Your task to perform on an android device: Show the shopping cart on target. Add "dell xps" to the cart on target, then select checkout. Image 0: 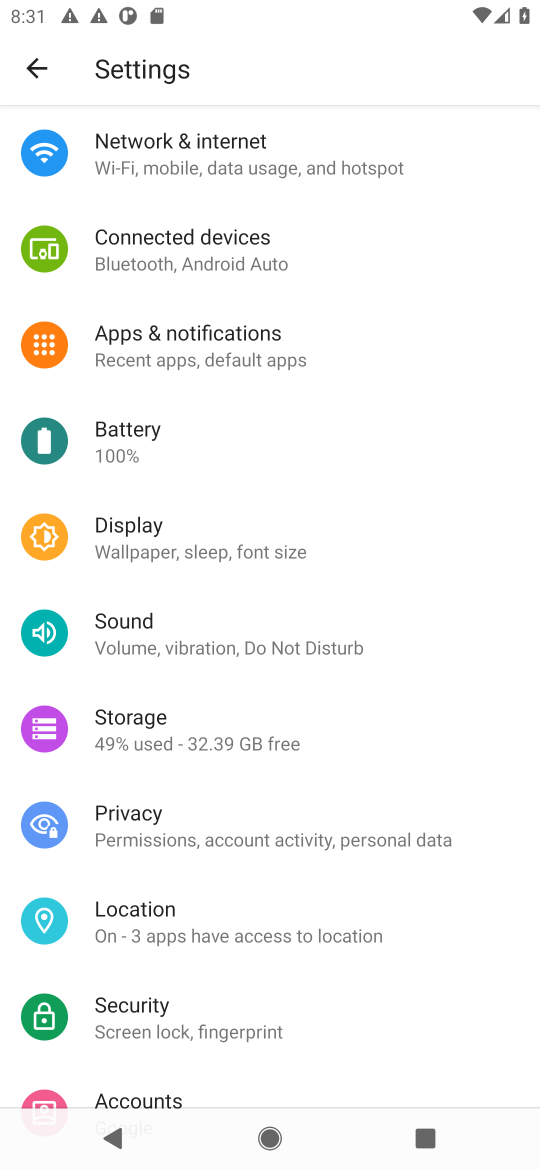
Step 0: press home button
Your task to perform on an android device: Show the shopping cart on target. Add "dell xps" to the cart on target, then select checkout. Image 1: 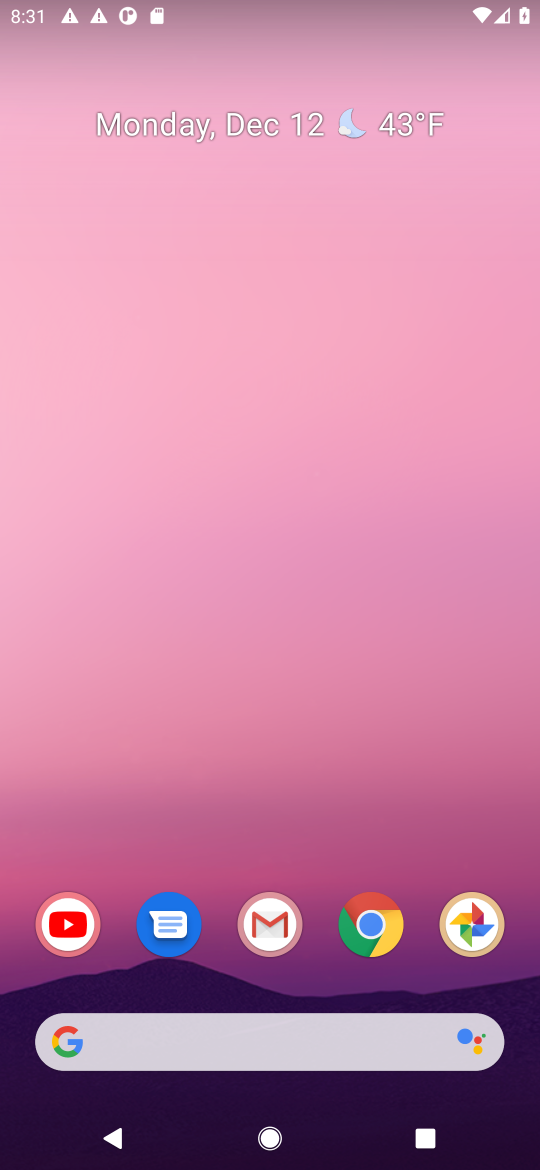
Step 1: drag from (255, 937) to (352, 246)
Your task to perform on an android device: Show the shopping cart on target. Add "dell xps" to the cart on target, then select checkout. Image 2: 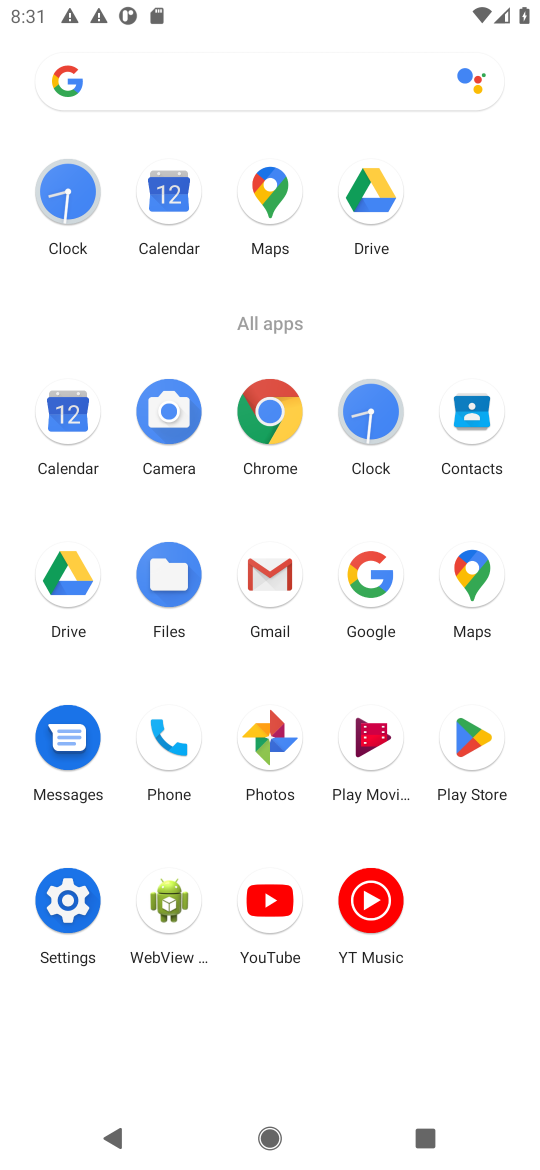
Step 2: click (363, 584)
Your task to perform on an android device: Show the shopping cart on target. Add "dell xps" to the cart on target, then select checkout. Image 3: 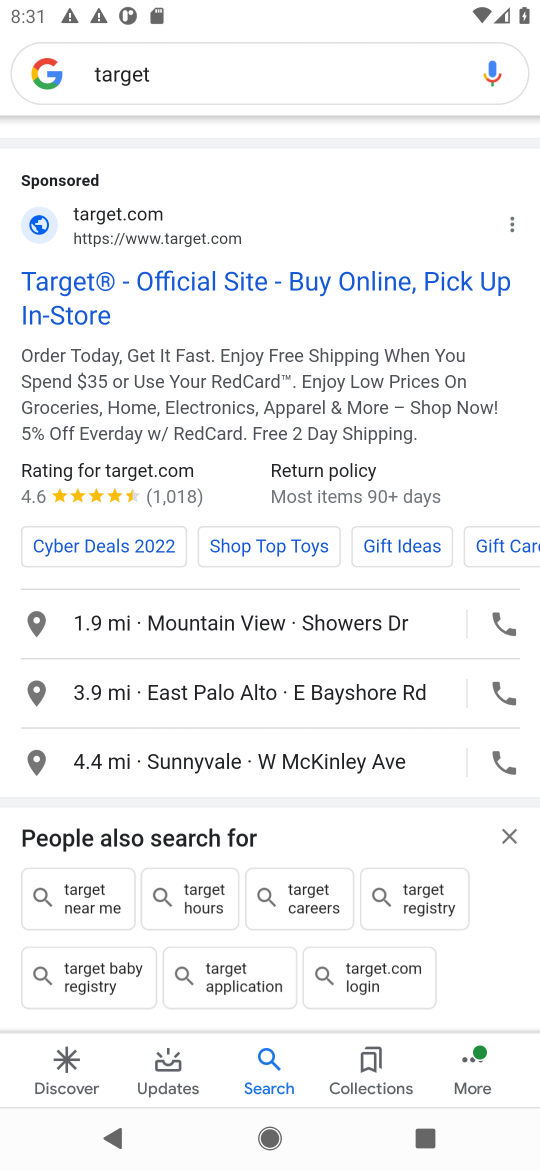
Step 3: drag from (374, 881) to (352, 392)
Your task to perform on an android device: Show the shopping cart on target. Add "dell xps" to the cart on target, then select checkout. Image 4: 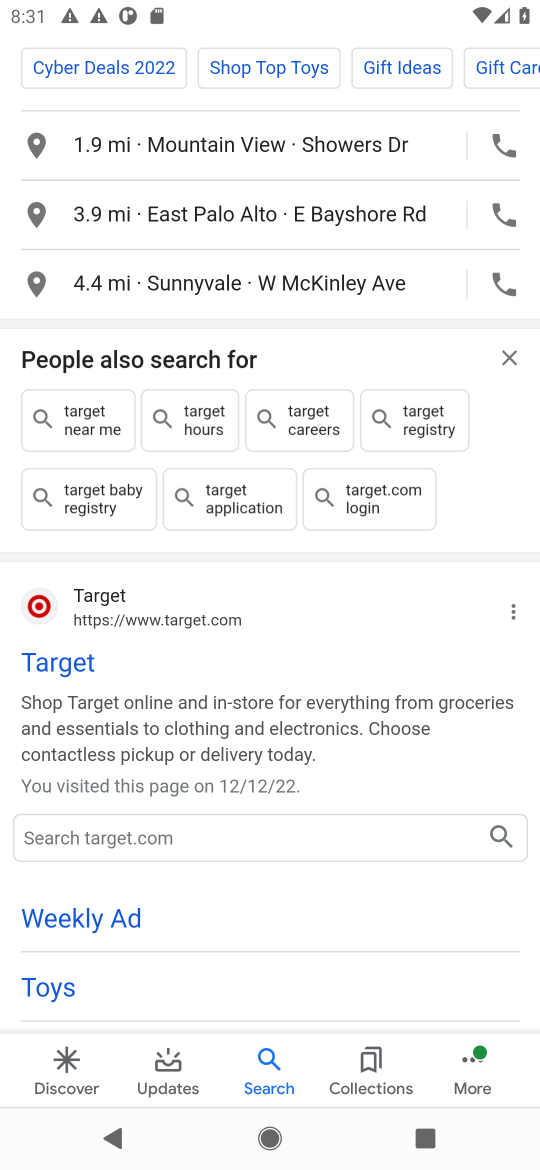
Step 4: drag from (348, 792) to (322, 287)
Your task to perform on an android device: Show the shopping cart on target. Add "dell xps" to the cart on target, then select checkout. Image 5: 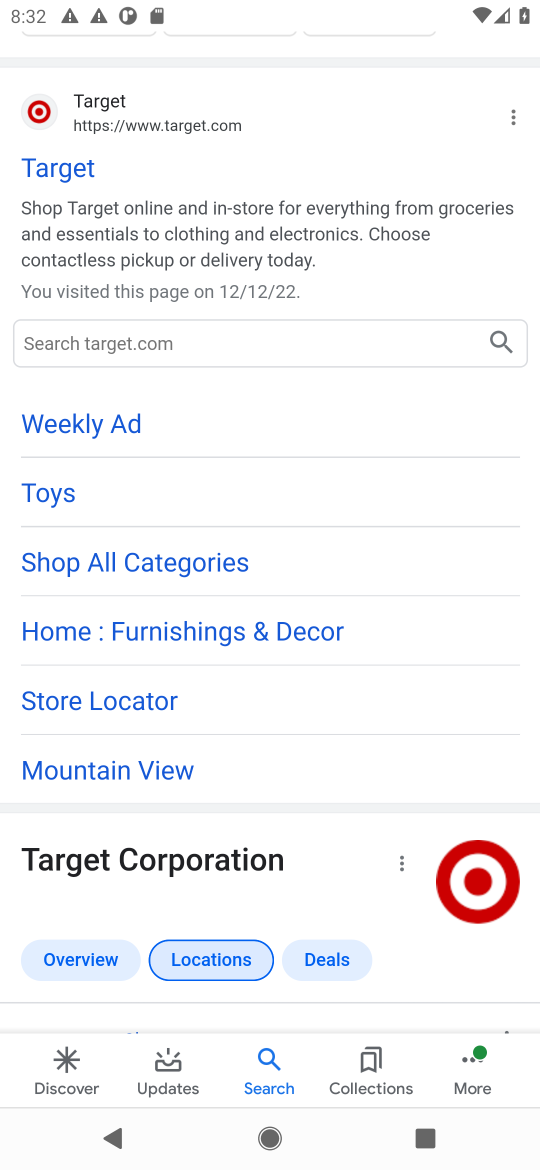
Step 5: drag from (404, 812) to (404, 322)
Your task to perform on an android device: Show the shopping cart on target. Add "dell xps" to the cart on target, then select checkout. Image 6: 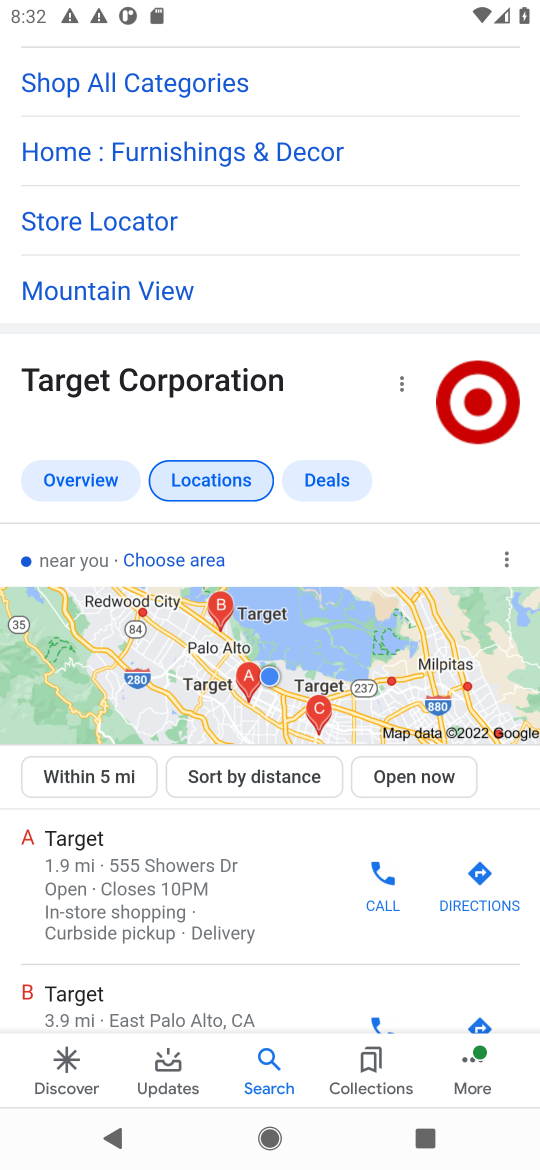
Step 6: click (233, 392)
Your task to perform on an android device: Show the shopping cart on target. Add "dell xps" to the cart on target, then select checkout. Image 7: 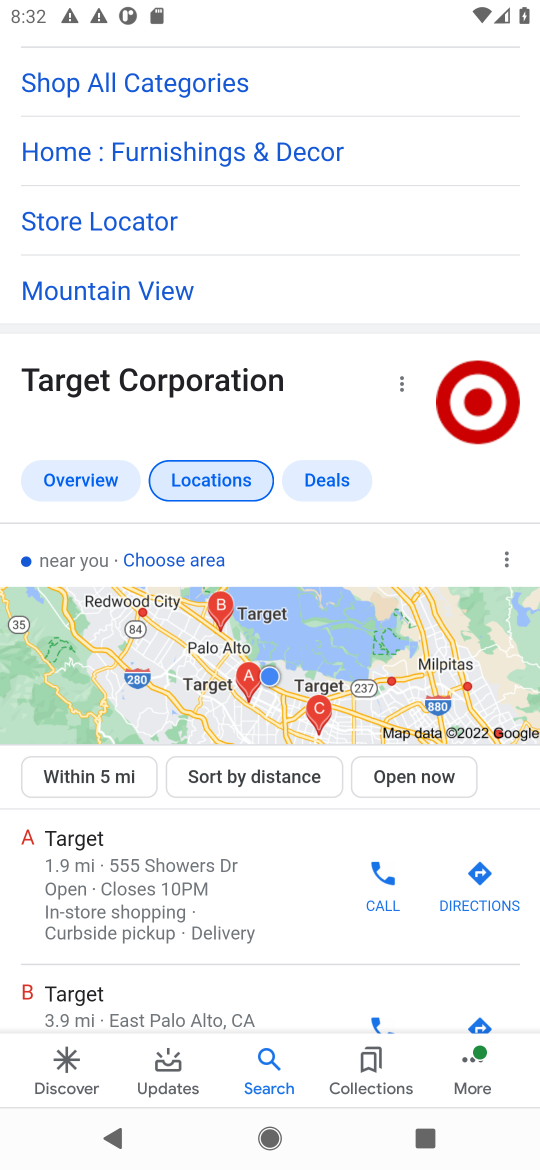
Step 7: click (451, 407)
Your task to perform on an android device: Show the shopping cart on target. Add "dell xps" to the cart on target, then select checkout. Image 8: 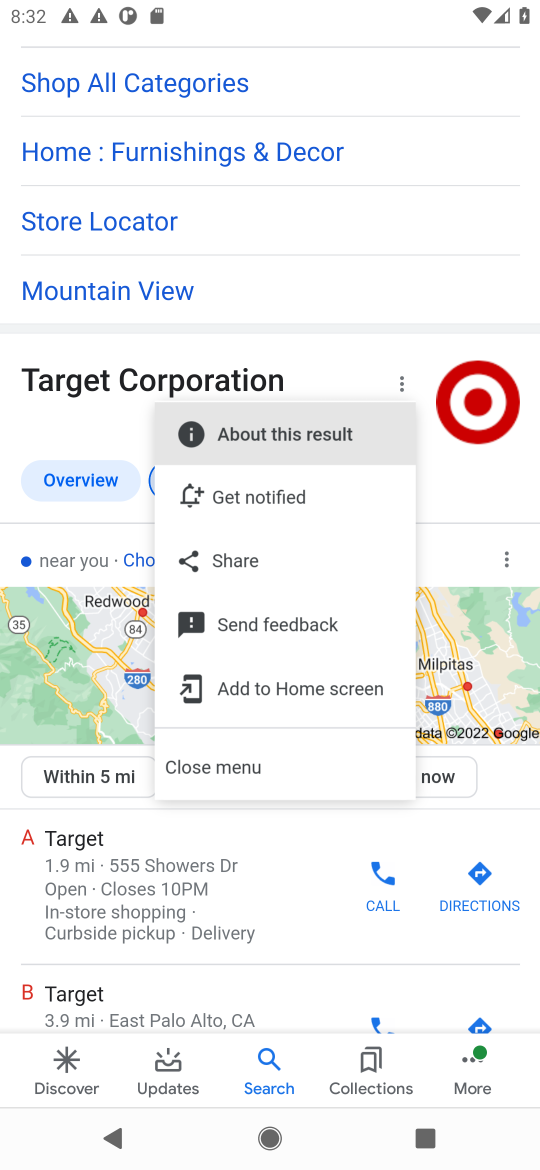
Step 8: click (324, 895)
Your task to perform on an android device: Show the shopping cart on target. Add "dell xps" to the cart on target, then select checkout. Image 9: 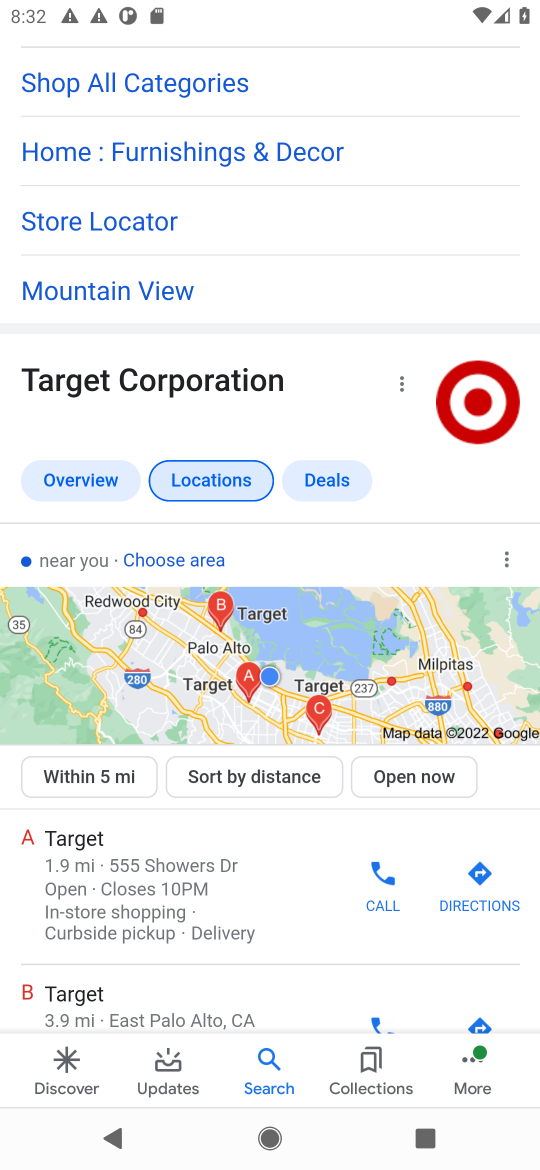
Step 9: drag from (383, 407) to (379, 627)
Your task to perform on an android device: Show the shopping cart on target. Add "dell xps" to the cart on target, then select checkout. Image 10: 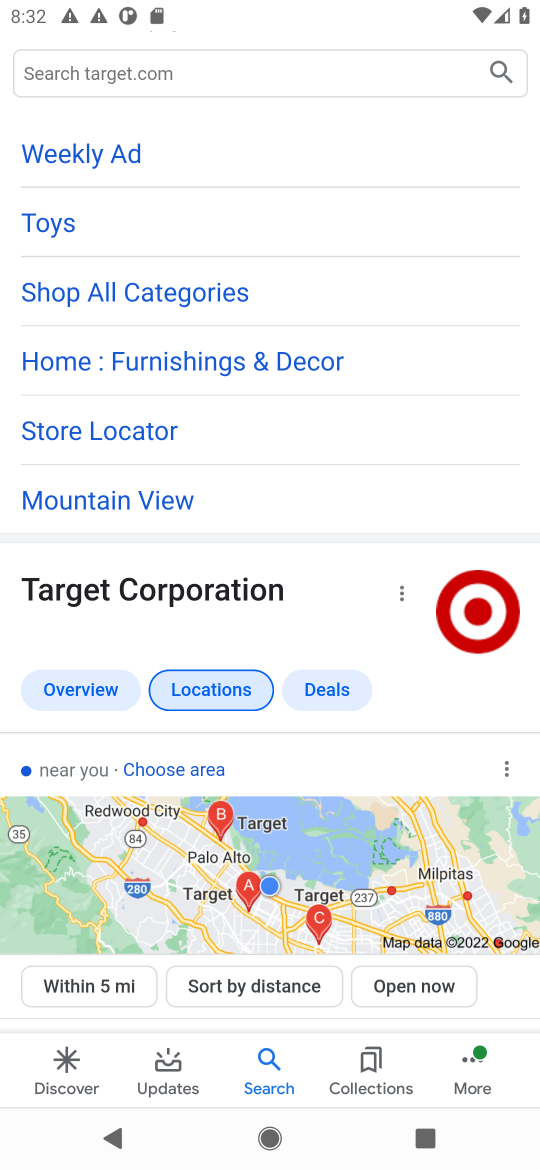
Step 10: click (312, 623)
Your task to perform on an android device: Show the shopping cart on target. Add "dell xps" to the cart on target, then select checkout. Image 11: 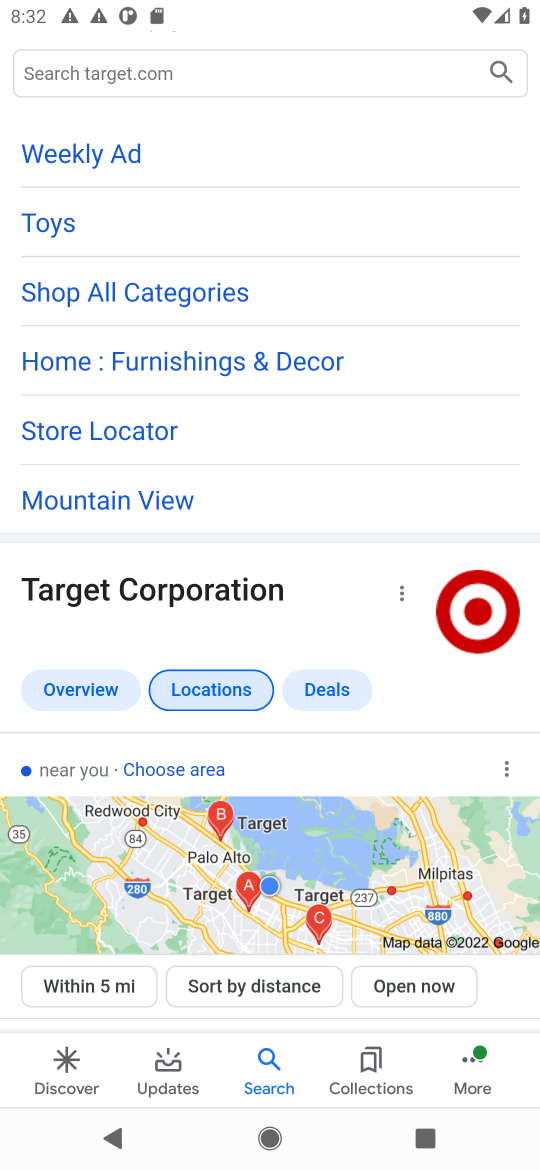
Step 11: drag from (312, 561) to (288, 706)
Your task to perform on an android device: Show the shopping cart on target. Add "dell xps" to the cart on target, then select checkout. Image 12: 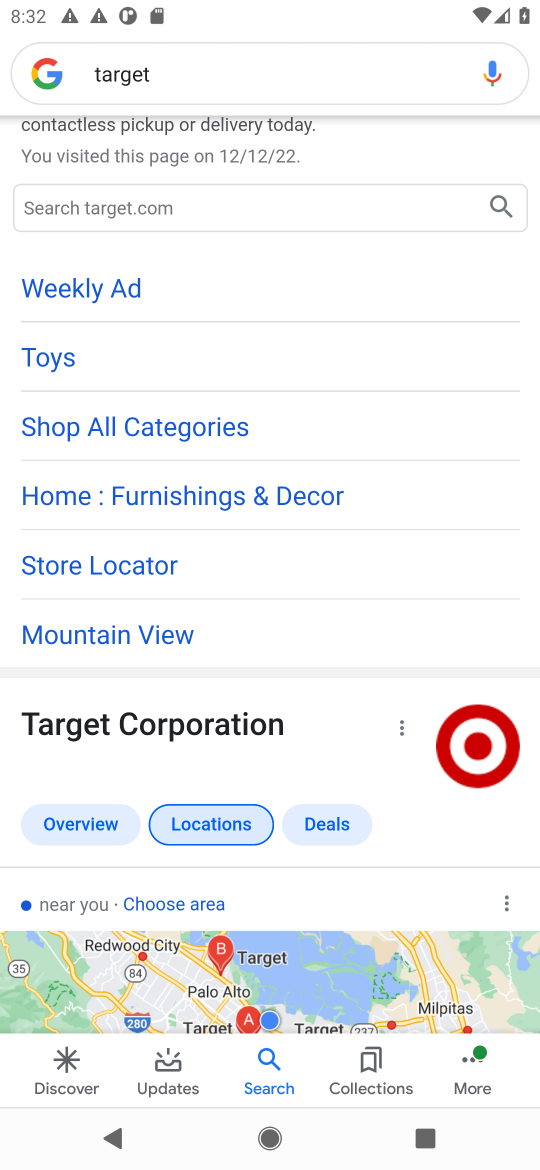
Step 12: drag from (279, 392) to (243, 754)
Your task to perform on an android device: Show the shopping cart on target. Add "dell xps" to the cart on target, then select checkout. Image 13: 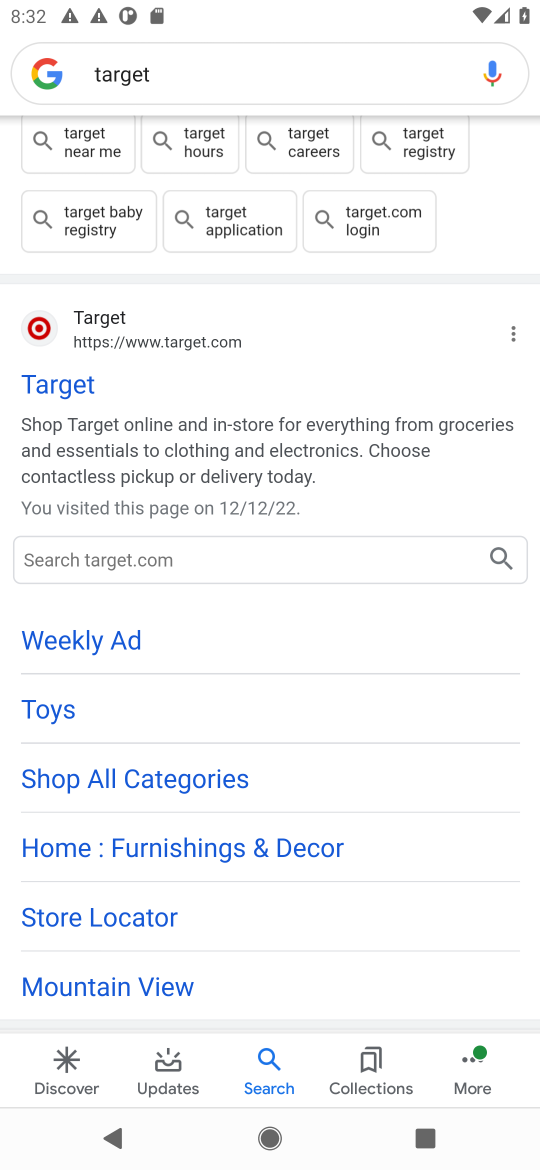
Step 13: click (69, 383)
Your task to perform on an android device: Show the shopping cart on target. Add "dell xps" to the cart on target, then select checkout. Image 14: 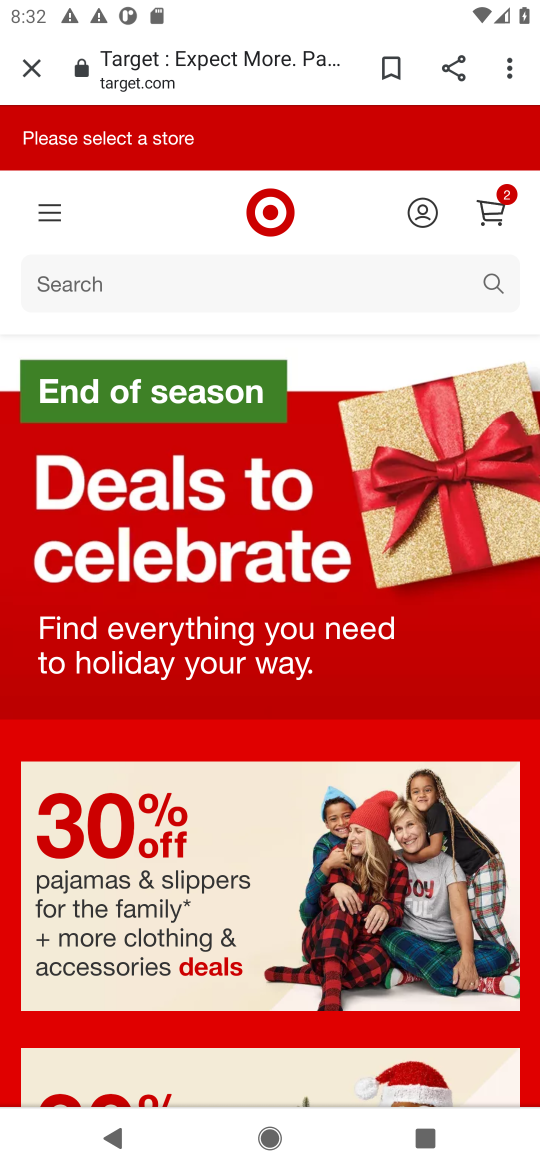
Step 14: click (489, 203)
Your task to perform on an android device: Show the shopping cart on target. Add "dell xps" to the cart on target, then select checkout. Image 15: 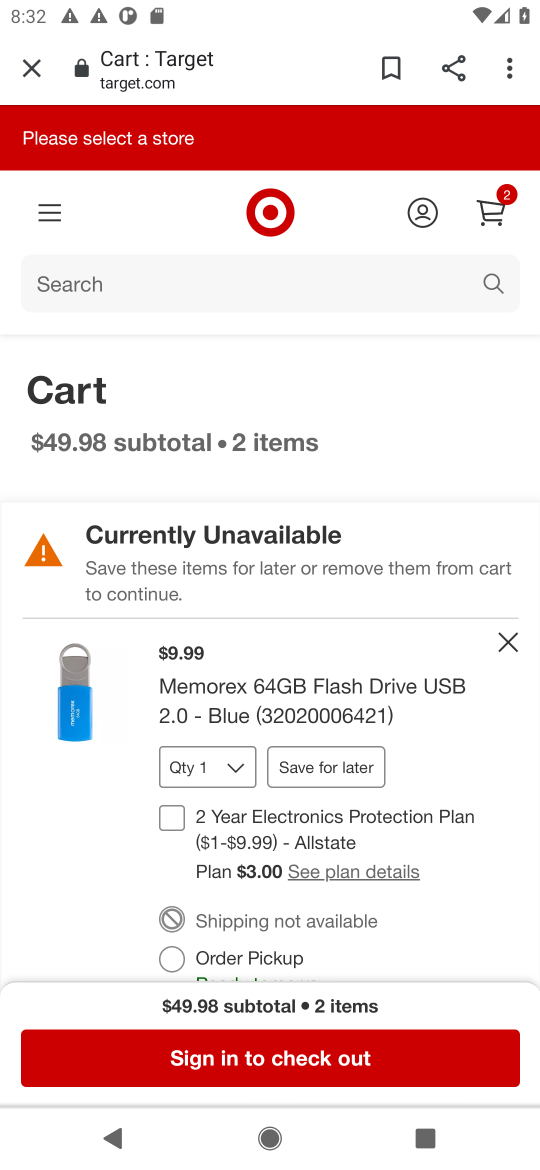
Step 15: click (269, 283)
Your task to perform on an android device: Show the shopping cart on target. Add "dell xps" to the cart on target, then select checkout. Image 16: 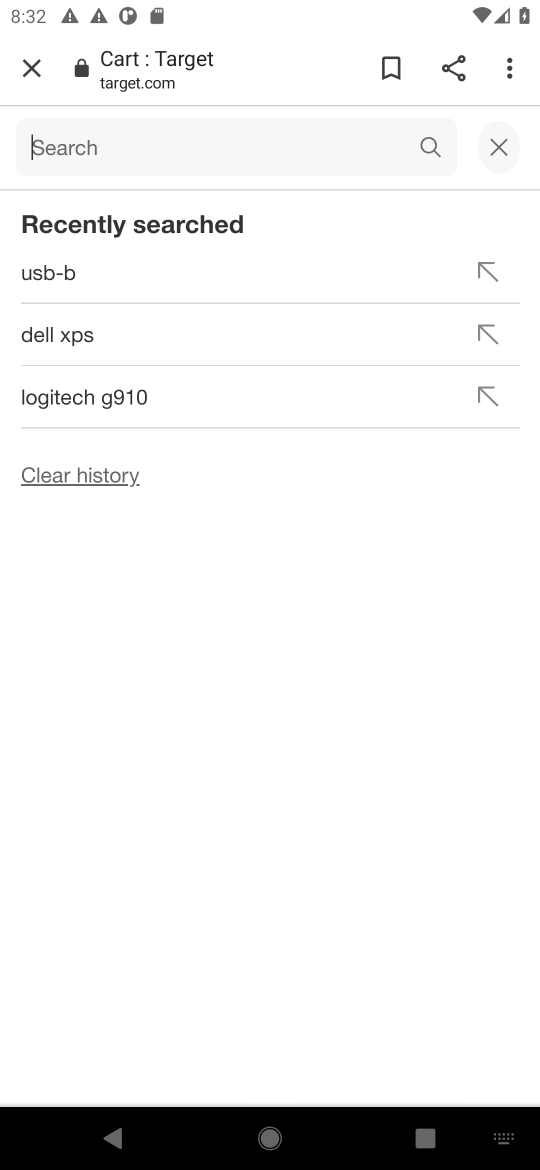
Step 16: type "dell xps"
Your task to perform on an android device: Show the shopping cart on target. Add "dell xps" to the cart on target, then select checkout. Image 17: 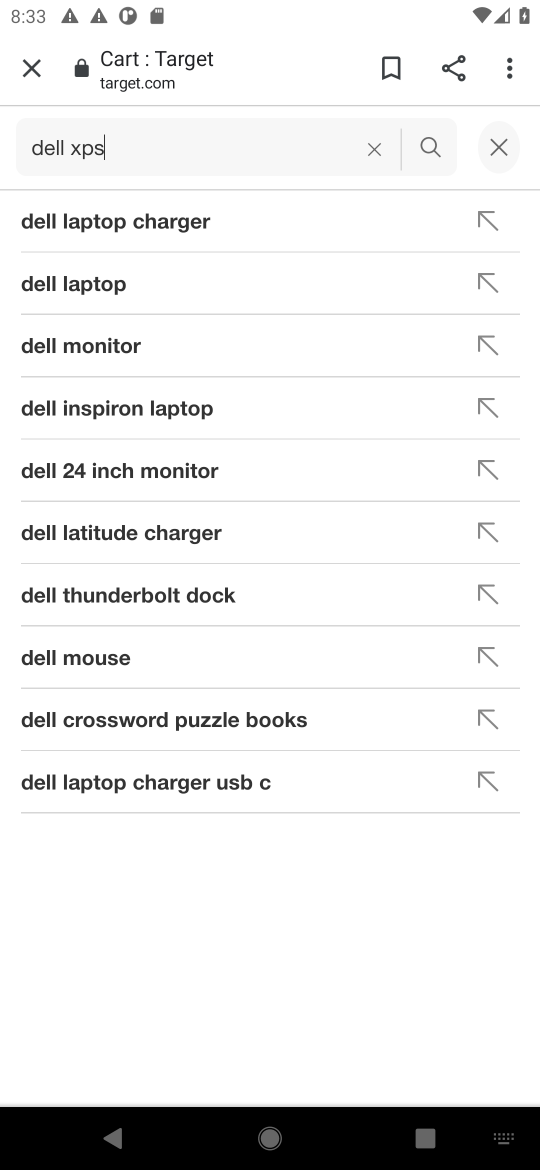
Step 17: click (426, 141)
Your task to perform on an android device: Show the shopping cart on target. Add "dell xps" to the cart on target, then select checkout. Image 18: 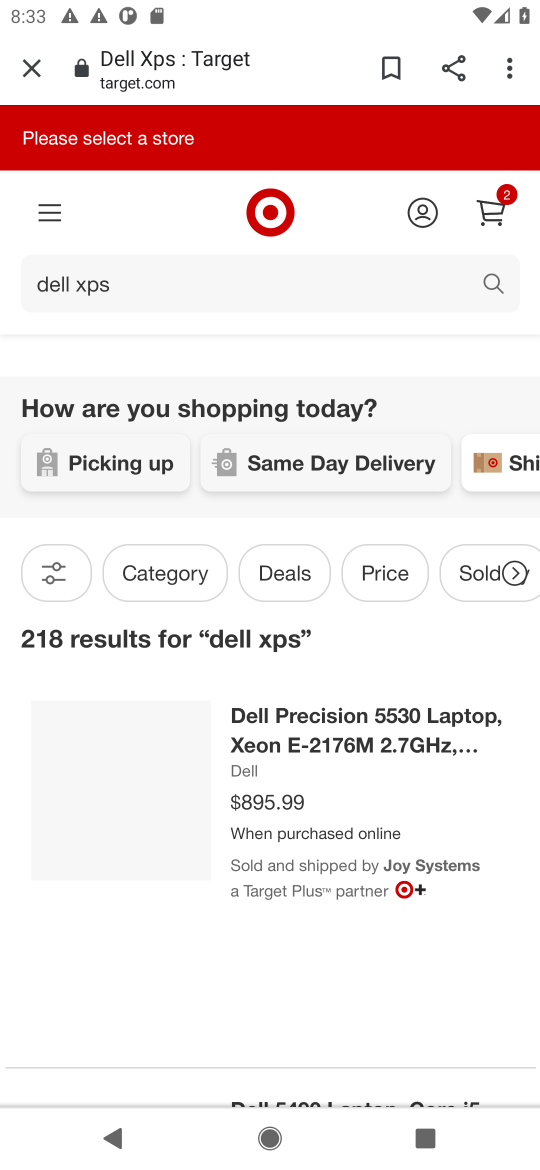
Step 18: drag from (294, 871) to (318, 499)
Your task to perform on an android device: Show the shopping cart on target. Add "dell xps" to the cart on target, then select checkout. Image 19: 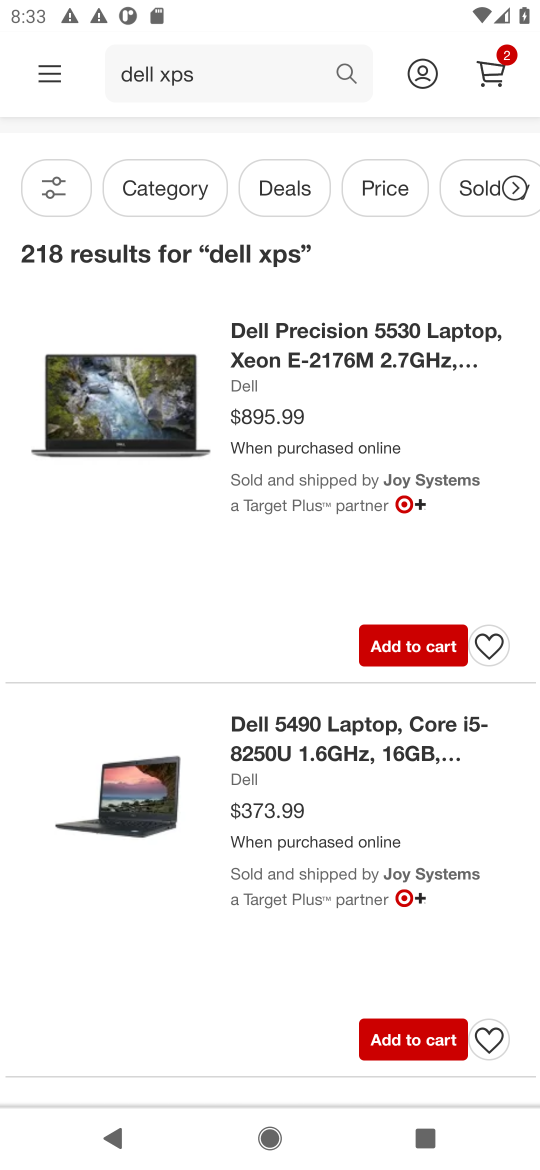
Step 19: click (400, 636)
Your task to perform on an android device: Show the shopping cart on target. Add "dell xps" to the cart on target, then select checkout. Image 20: 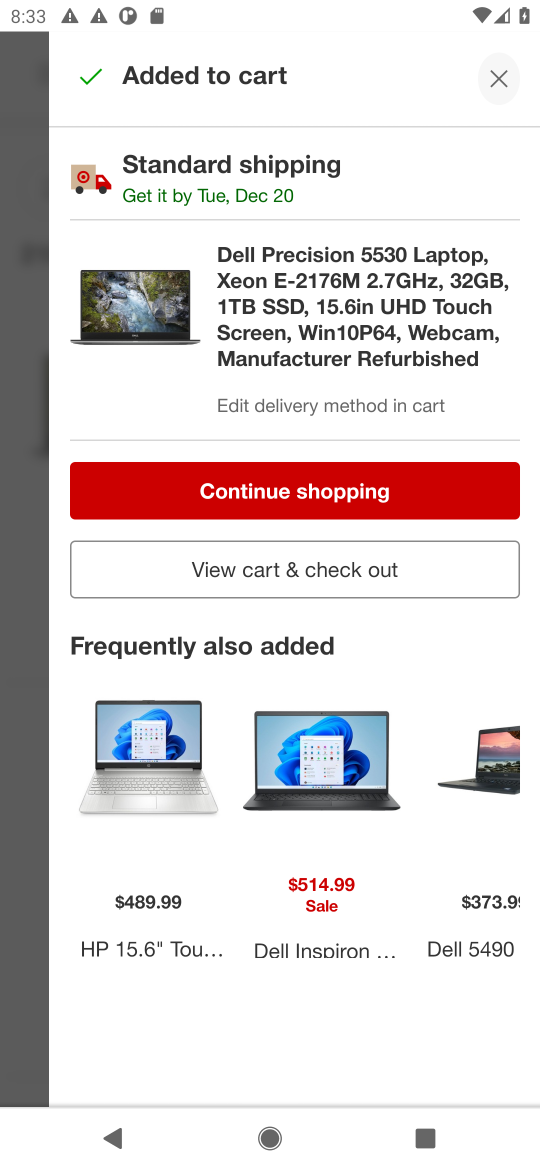
Step 20: click (491, 75)
Your task to perform on an android device: Show the shopping cart on target. Add "dell xps" to the cart on target, then select checkout. Image 21: 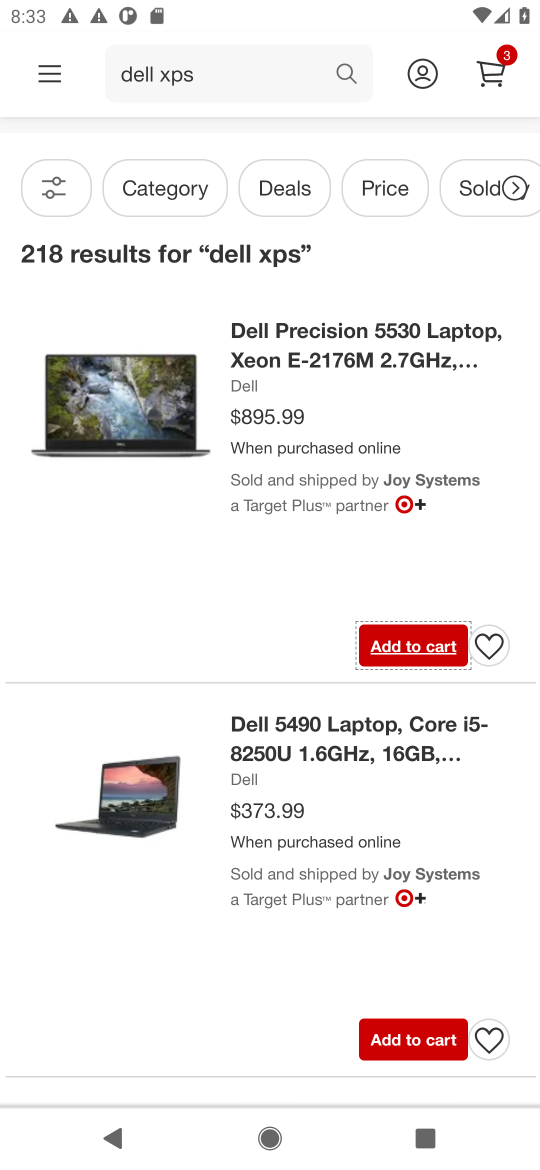
Step 21: click (502, 73)
Your task to perform on an android device: Show the shopping cart on target. Add "dell xps" to the cart on target, then select checkout. Image 22: 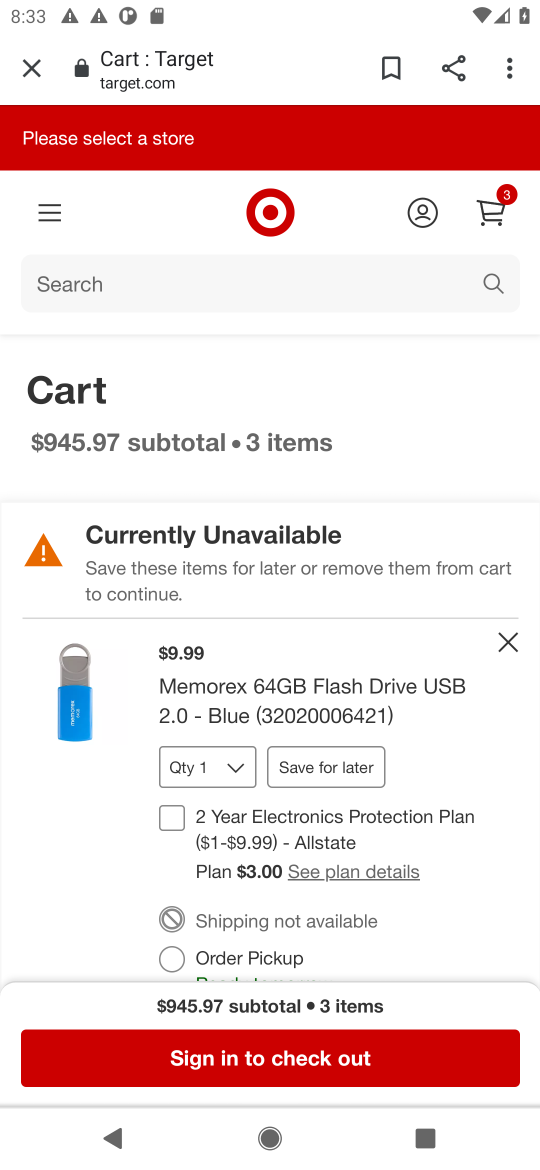
Step 22: click (271, 1051)
Your task to perform on an android device: Show the shopping cart on target. Add "dell xps" to the cart on target, then select checkout. Image 23: 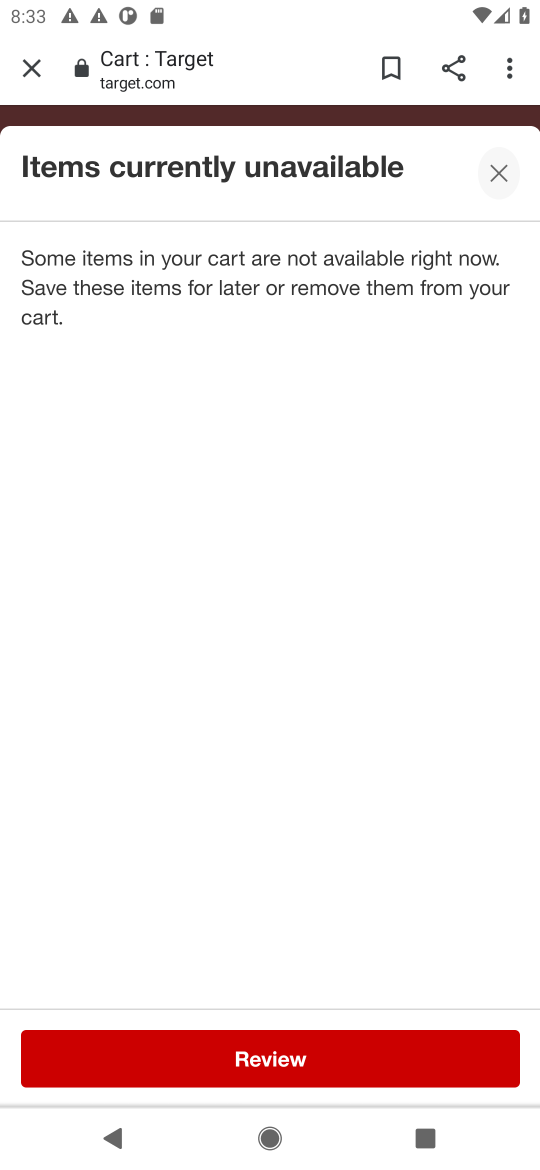
Step 23: task complete